Your task to perform on an android device: Open Wikipedia Image 0: 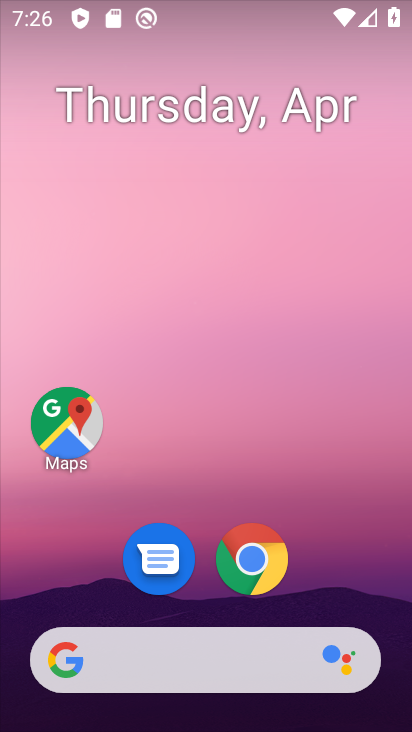
Step 0: drag from (228, 716) to (270, 15)
Your task to perform on an android device: Open Wikipedia Image 1: 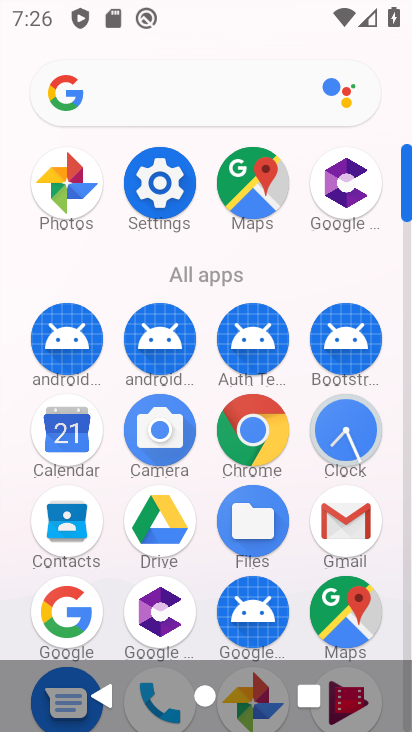
Step 1: click (242, 79)
Your task to perform on an android device: Open Wikipedia Image 2: 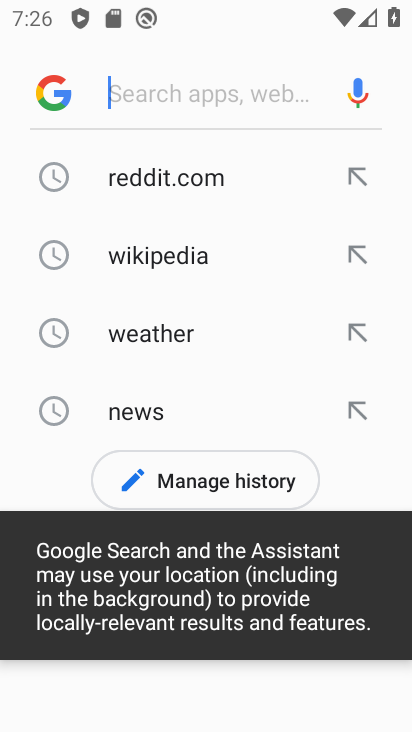
Step 2: type "w"
Your task to perform on an android device: Open Wikipedia Image 3: 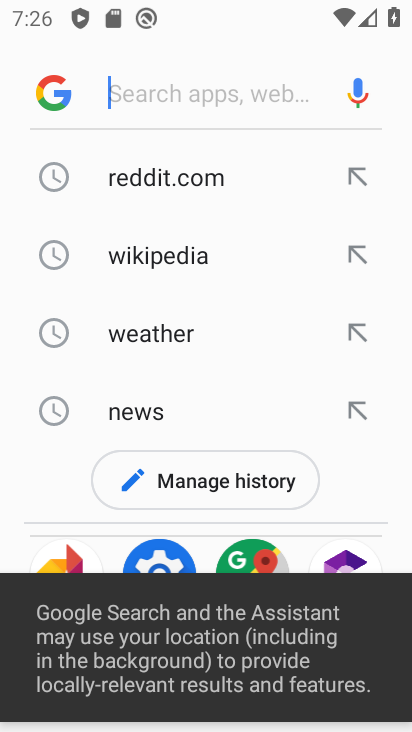
Step 3: click (232, 260)
Your task to perform on an android device: Open Wikipedia Image 4: 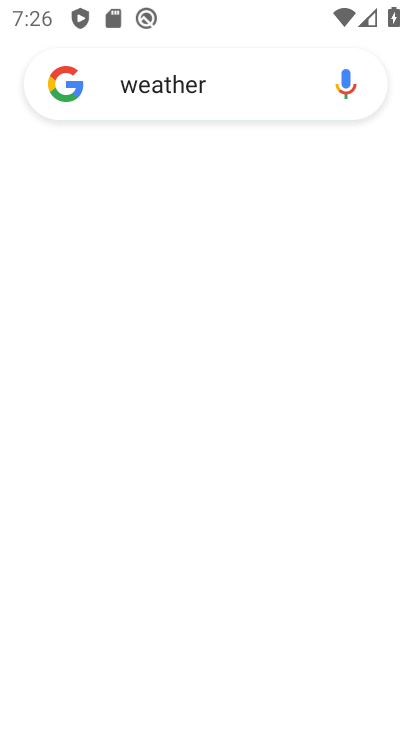
Step 4: click (183, 176)
Your task to perform on an android device: Open Wikipedia Image 5: 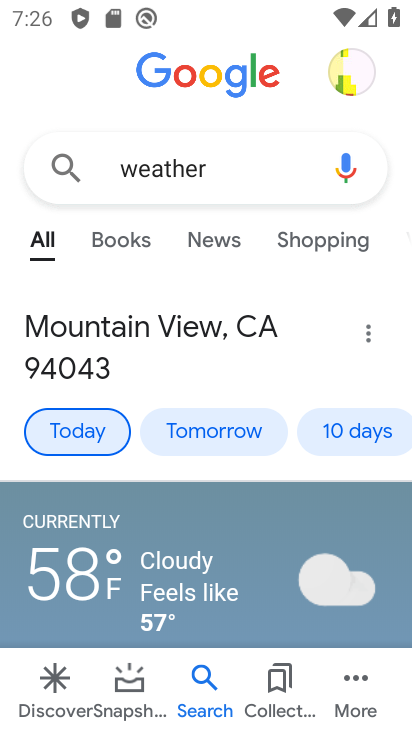
Step 5: click (269, 167)
Your task to perform on an android device: Open Wikipedia Image 6: 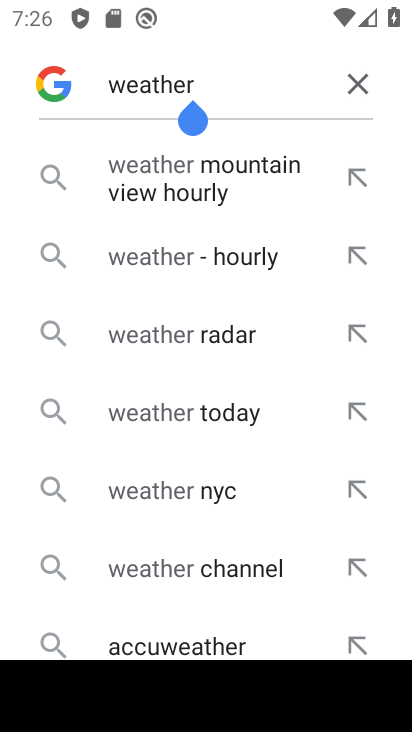
Step 6: click (362, 77)
Your task to perform on an android device: Open Wikipedia Image 7: 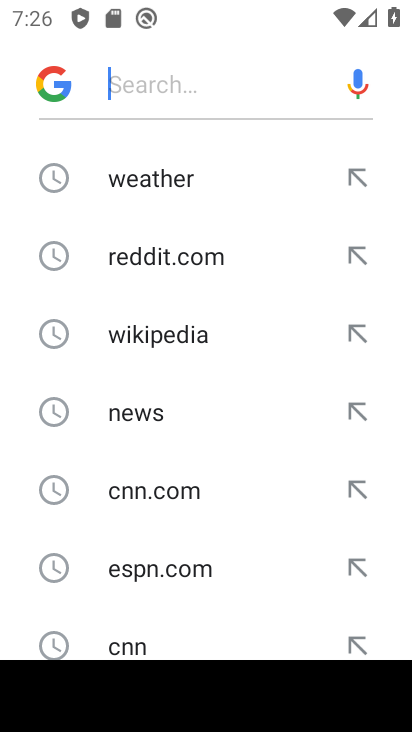
Step 7: click (218, 325)
Your task to perform on an android device: Open Wikipedia Image 8: 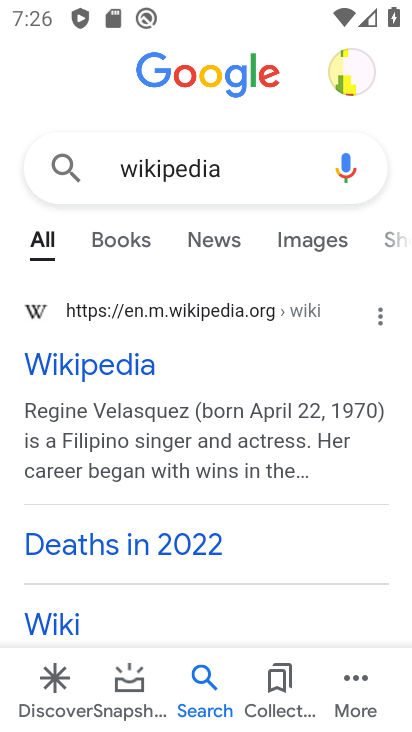
Step 8: task complete